Your task to perform on an android device: What's the weather? Image 0: 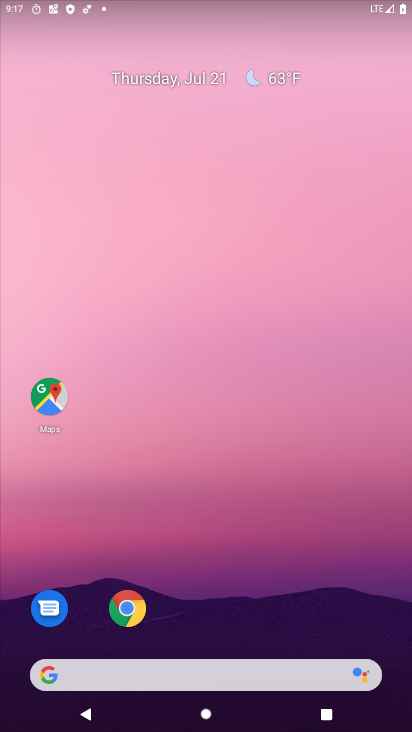
Step 0: drag from (188, 468) to (129, 21)
Your task to perform on an android device: What's the weather? Image 1: 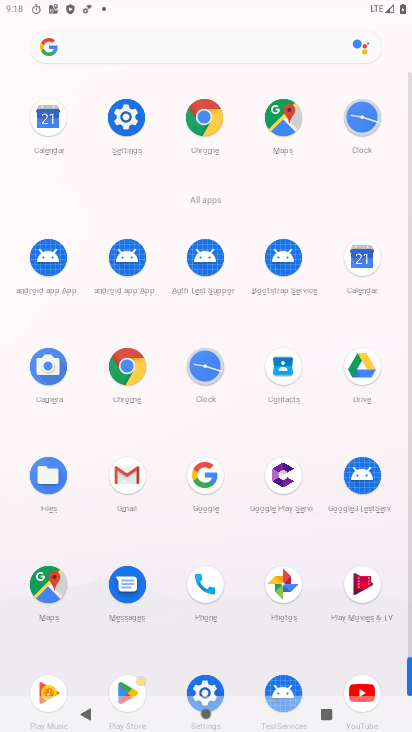
Step 1: drag from (122, 543) to (160, 212)
Your task to perform on an android device: What's the weather? Image 2: 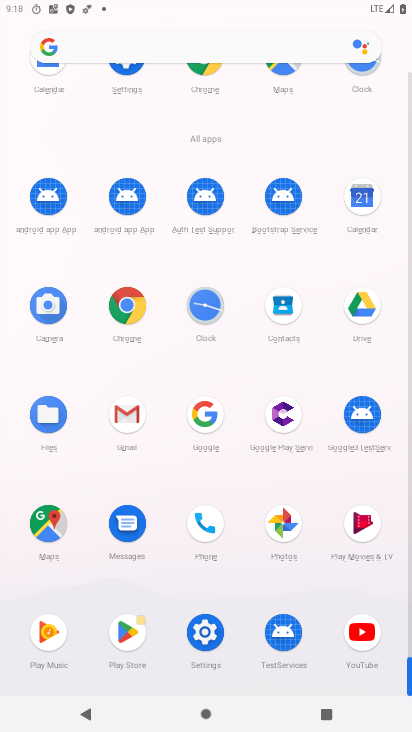
Step 2: click (211, 424)
Your task to perform on an android device: What's the weather? Image 3: 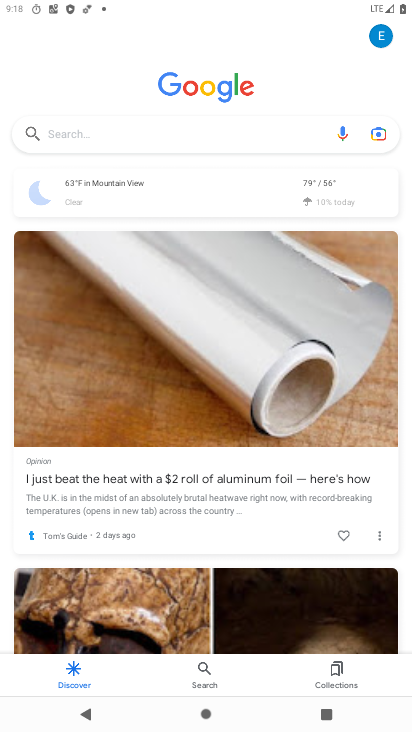
Step 3: click (147, 137)
Your task to perform on an android device: What's the weather? Image 4: 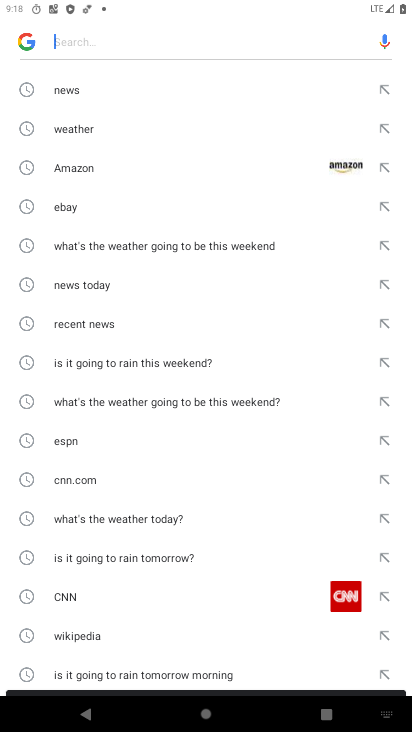
Step 4: click (83, 133)
Your task to perform on an android device: What's the weather? Image 5: 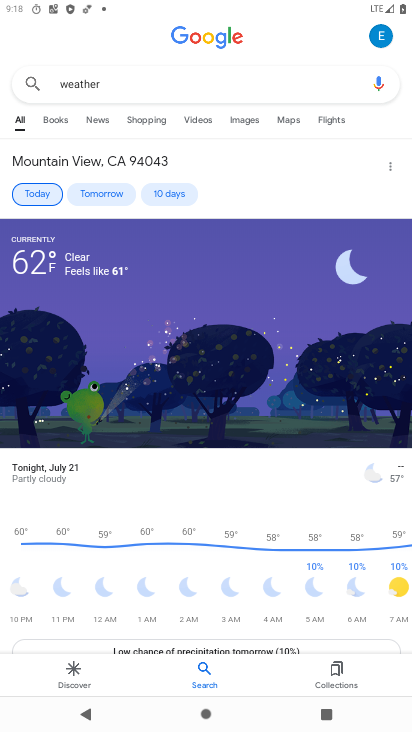
Step 5: task complete